Your task to perform on an android device: toggle improve location accuracy Image 0: 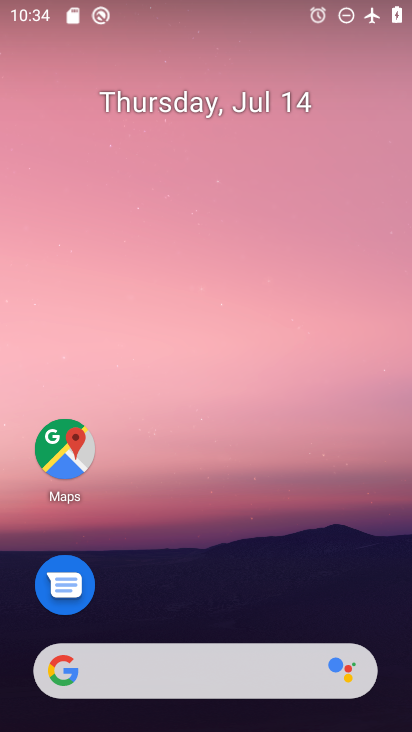
Step 0: drag from (202, 612) to (157, 264)
Your task to perform on an android device: toggle improve location accuracy Image 1: 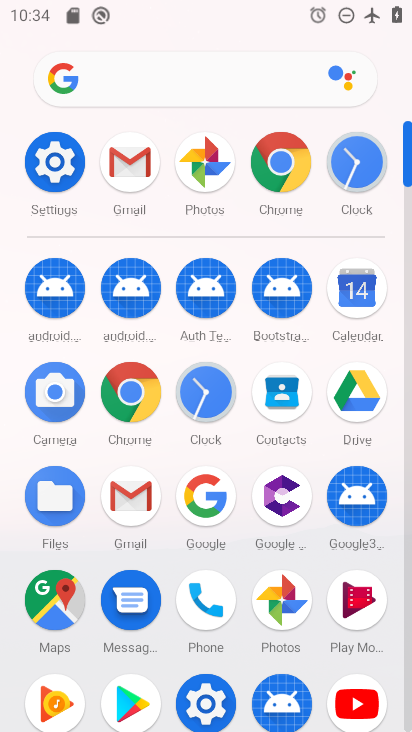
Step 1: click (20, 170)
Your task to perform on an android device: toggle improve location accuracy Image 2: 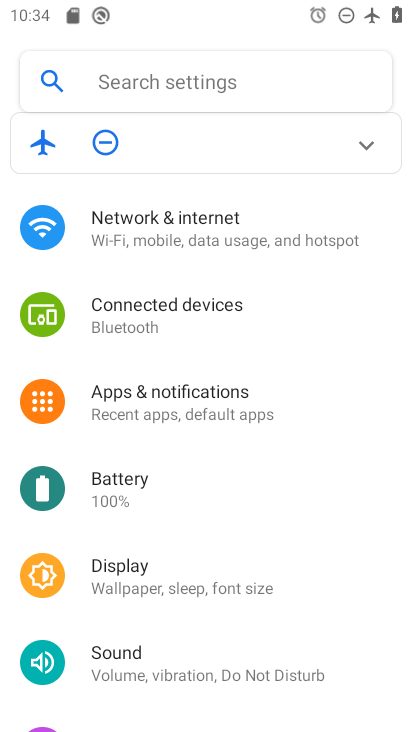
Step 2: drag from (271, 602) to (171, 256)
Your task to perform on an android device: toggle improve location accuracy Image 3: 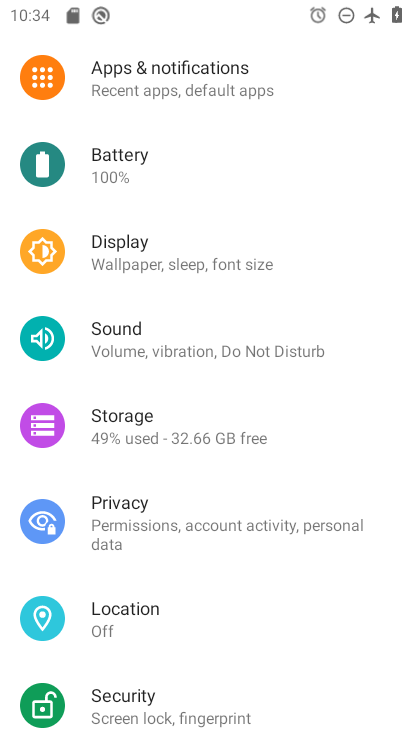
Step 3: click (139, 614)
Your task to perform on an android device: toggle improve location accuracy Image 4: 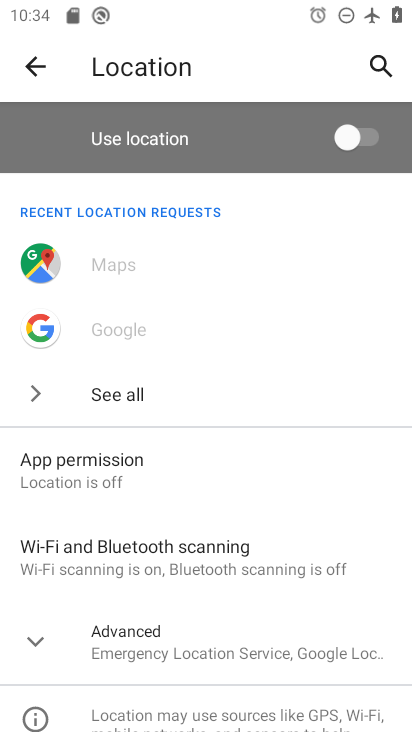
Step 4: click (139, 614)
Your task to perform on an android device: toggle improve location accuracy Image 5: 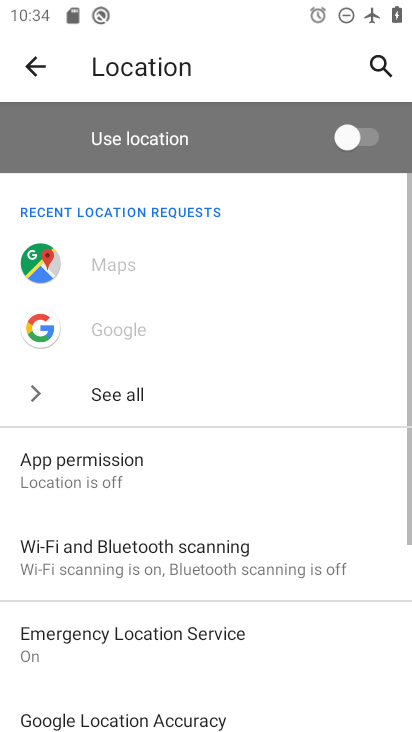
Step 5: drag from (139, 614) to (127, 256)
Your task to perform on an android device: toggle improve location accuracy Image 6: 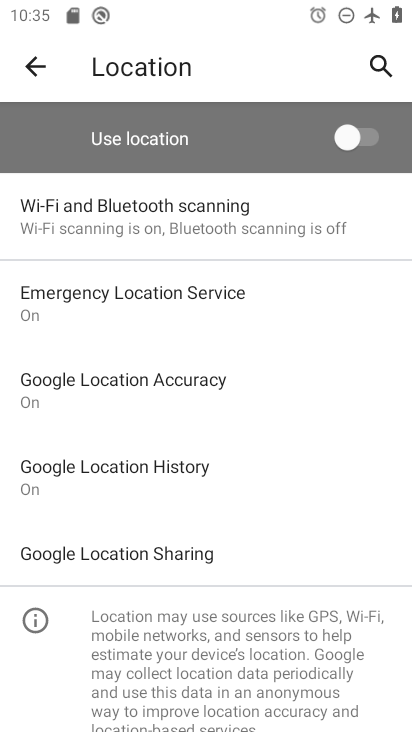
Step 6: click (168, 364)
Your task to perform on an android device: toggle improve location accuracy Image 7: 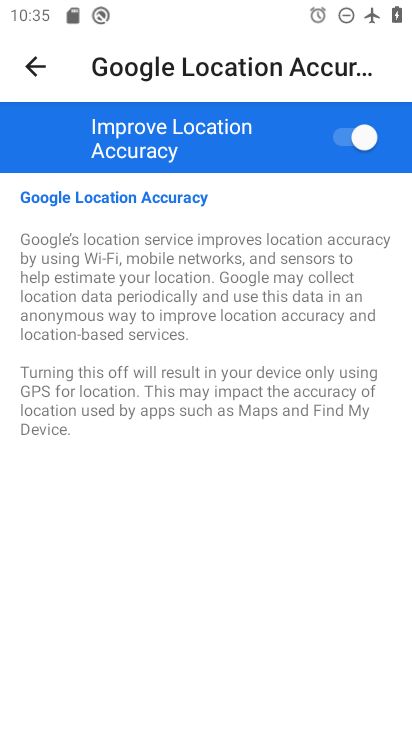
Step 7: click (332, 136)
Your task to perform on an android device: toggle improve location accuracy Image 8: 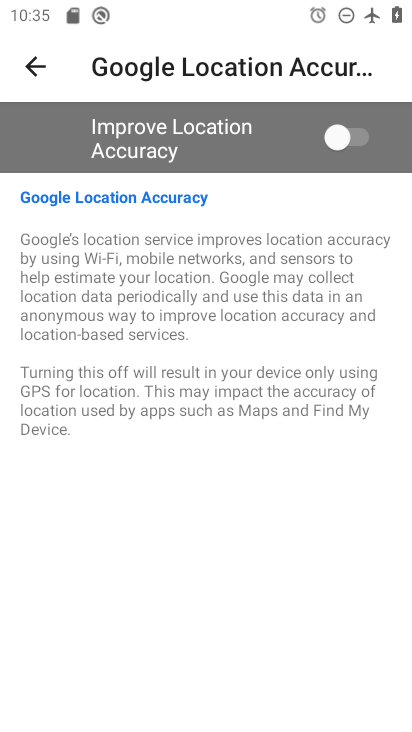
Step 8: task complete